Your task to perform on an android device: open sync settings in chrome Image 0: 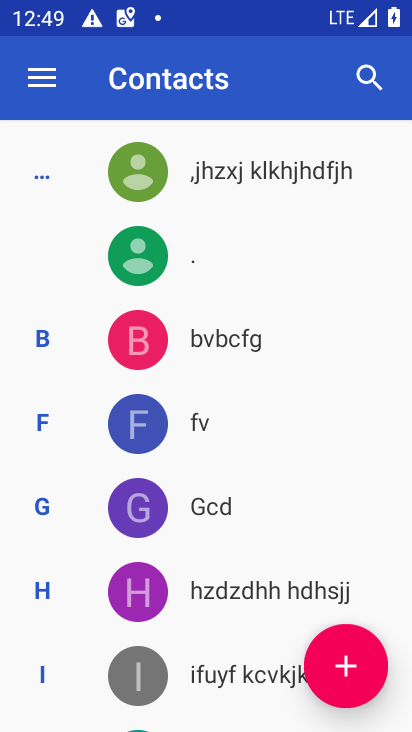
Step 0: press home button
Your task to perform on an android device: open sync settings in chrome Image 1: 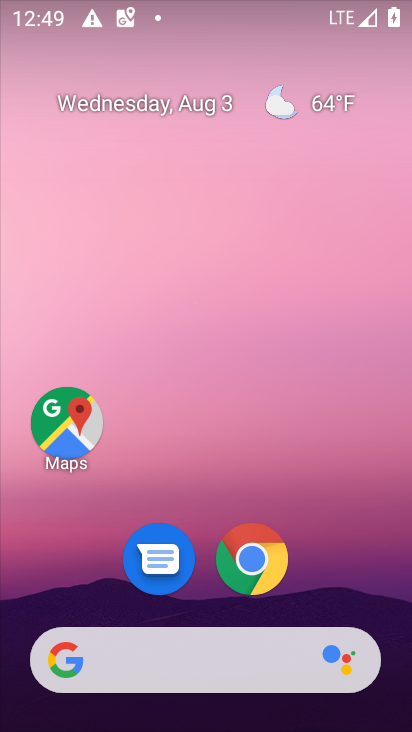
Step 1: click (254, 558)
Your task to perform on an android device: open sync settings in chrome Image 2: 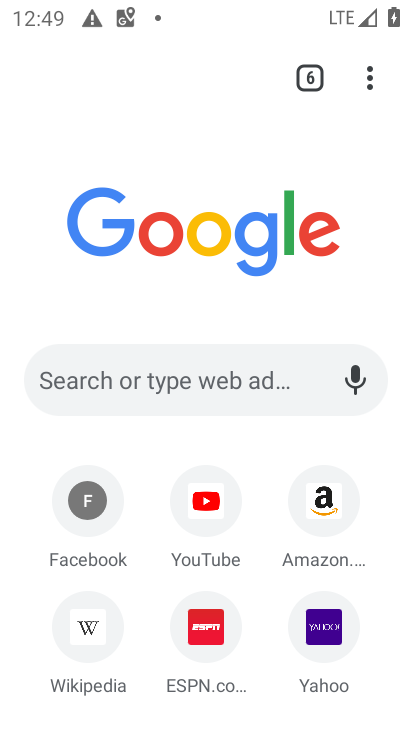
Step 2: click (371, 87)
Your task to perform on an android device: open sync settings in chrome Image 3: 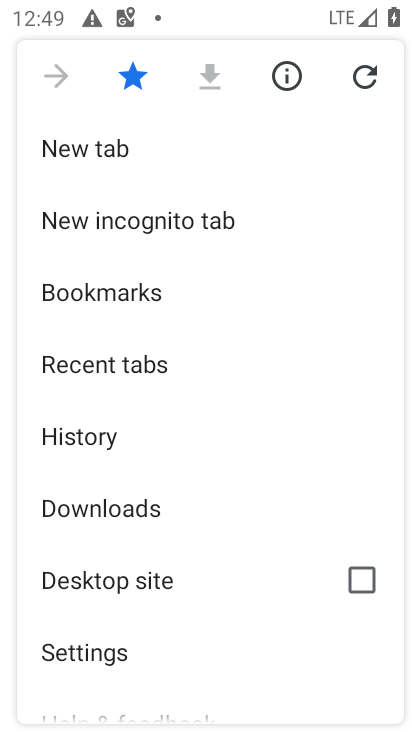
Step 3: click (85, 655)
Your task to perform on an android device: open sync settings in chrome Image 4: 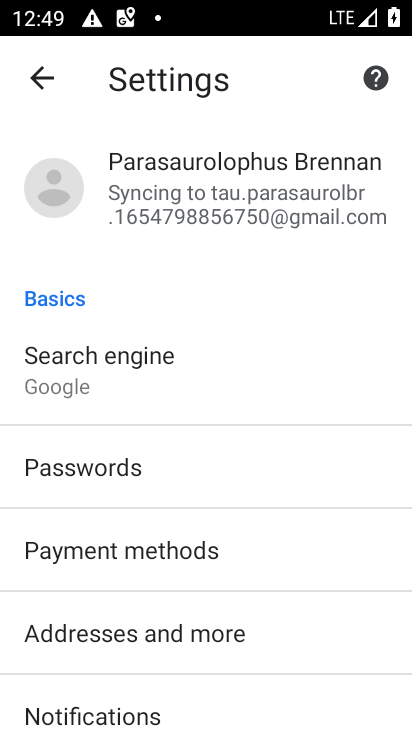
Step 4: drag from (184, 687) to (210, 234)
Your task to perform on an android device: open sync settings in chrome Image 5: 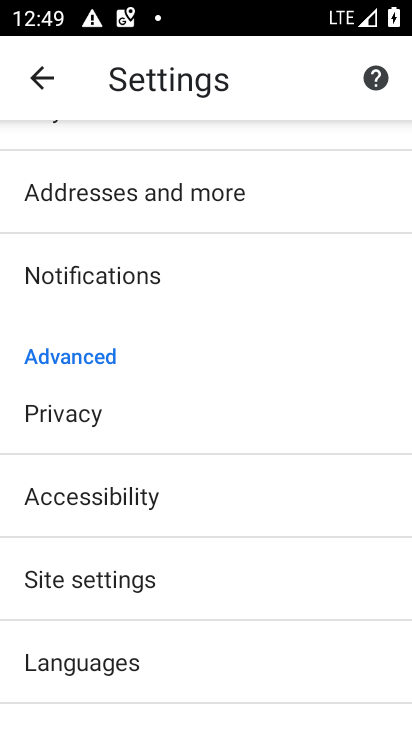
Step 5: drag from (222, 668) to (243, 174)
Your task to perform on an android device: open sync settings in chrome Image 6: 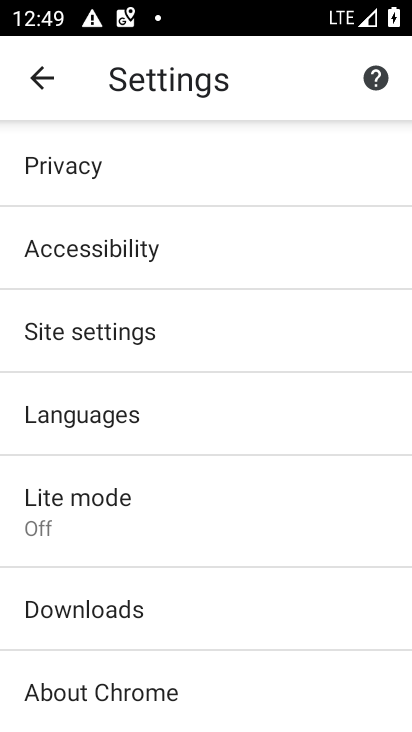
Step 6: drag from (190, 688) to (198, 202)
Your task to perform on an android device: open sync settings in chrome Image 7: 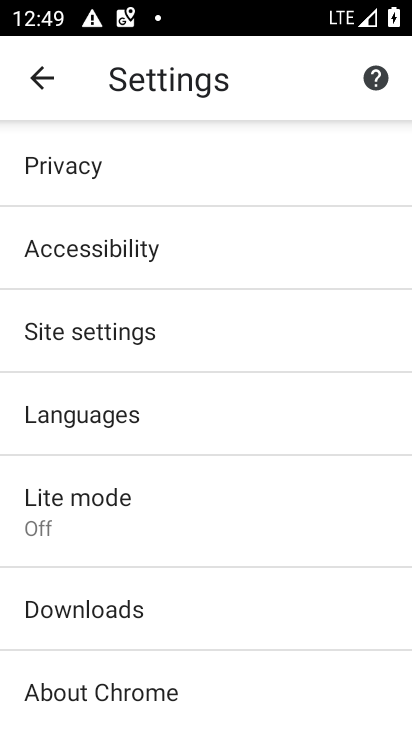
Step 7: drag from (88, 665) to (126, 178)
Your task to perform on an android device: open sync settings in chrome Image 8: 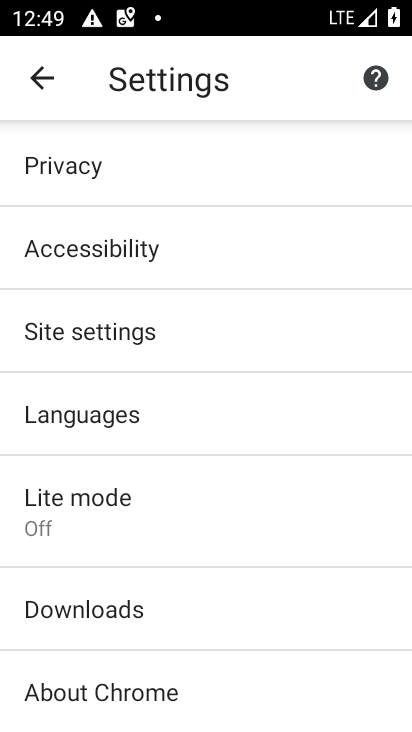
Step 8: drag from (177, 666) to (159, 139)
Your task to perform on an android device: open sync settings in chrome Image 9: 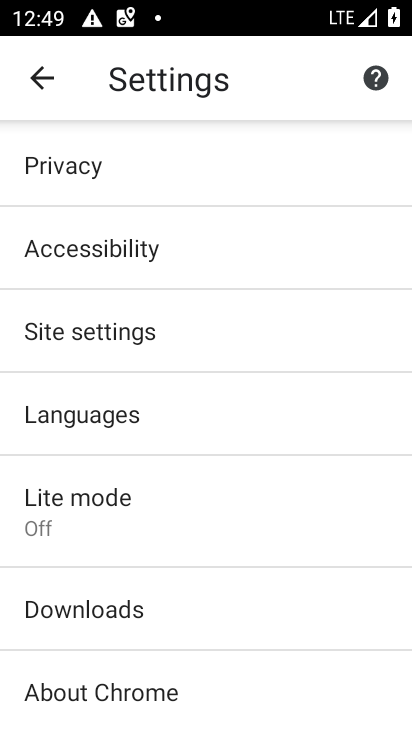
Step 9: click (109, 328)
Your task to perform on an android device: open sync settings in chrome Image 10: 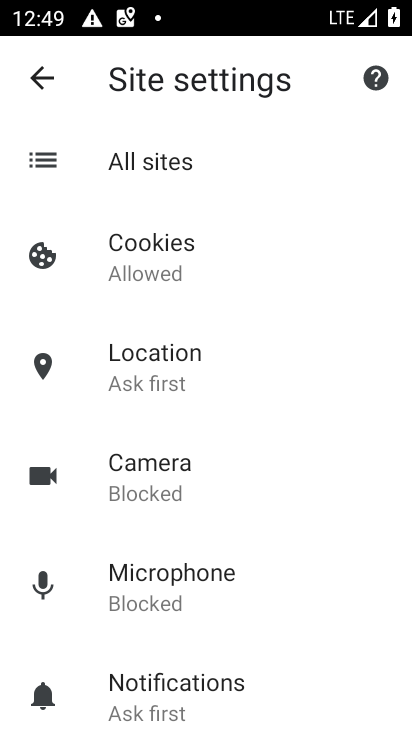
Step 10: drag from (143, 626) to (177, 182)
Your task to perform on an android device: open sync settings in chrome Image 11: 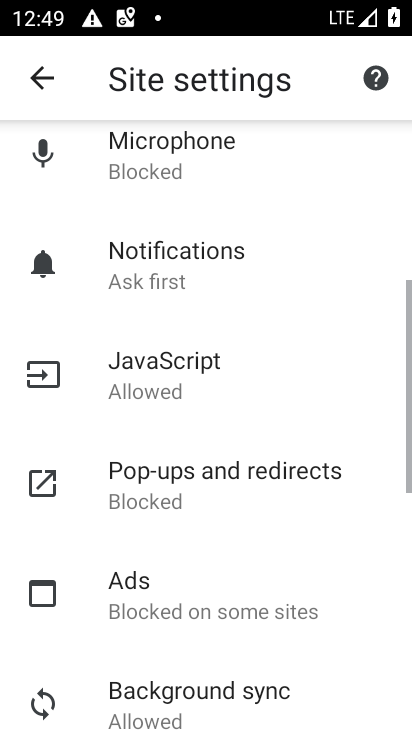
Step 11: click (194, 693)
Your task to perform on an android device: open sync settings in chrome Image 12: 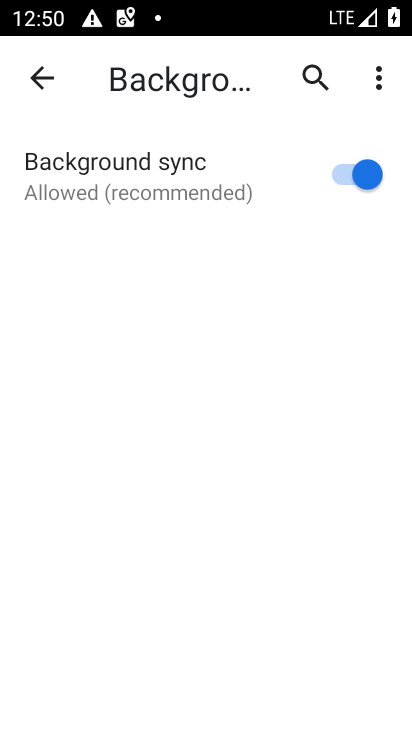
Step 12: task complete